Your task to perform on an android device: Open display settings Image 0: 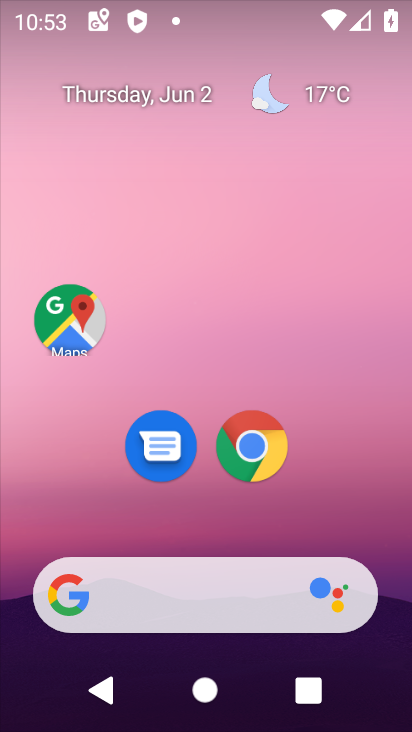
Step 0: drag from (326, 539) to (231, 167)
Your task to perform on an android device: Open display settings Image 1: 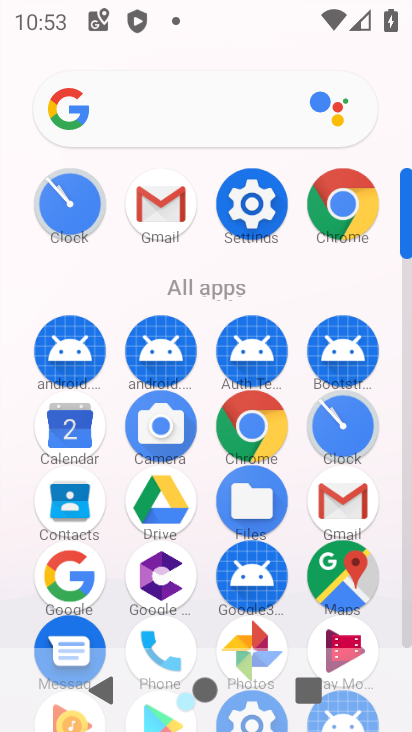
Step 1: click (243, 218)
Your task to perform on an android device: Open display settings Image 2: 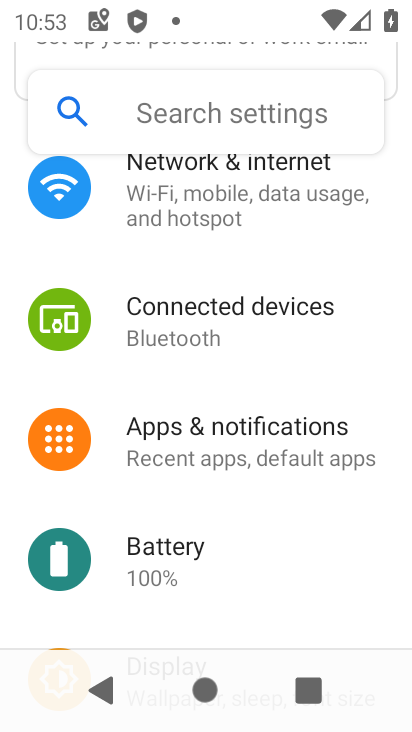
Step 2: drag from (269, 514) to (262, 147)
Your task to perform on an android device: Open display settings Image 3: 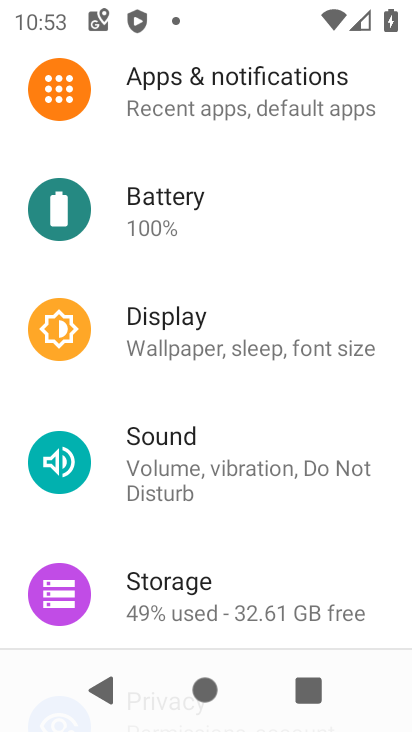
Step 3: drag from (223, 515) to (254, 164)
Your task to perform on an android device: Open display settings Image 4: 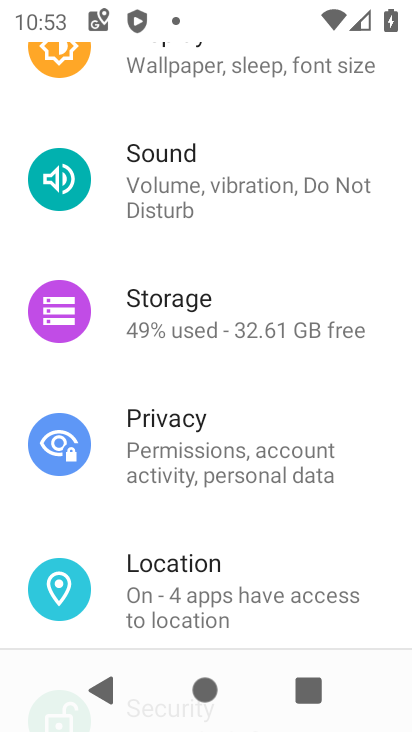
Step 4: click (260, 125)
Your task to perform on an android device: Open display settings Image 5: 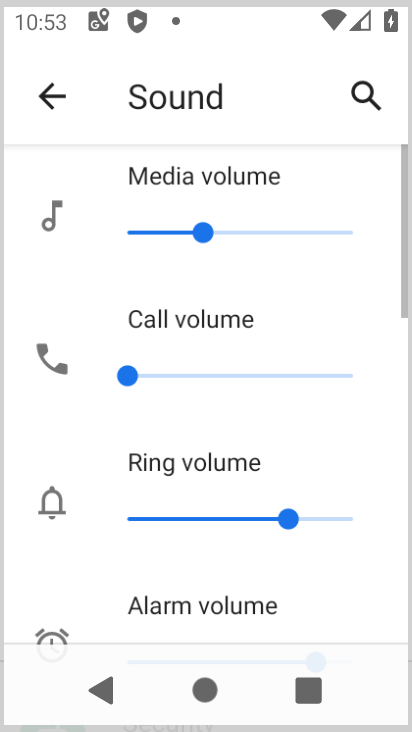
Step 5: drag from (236, 486) to (260, 260)
Your task to perform on an android device: Open display settings Image 6: 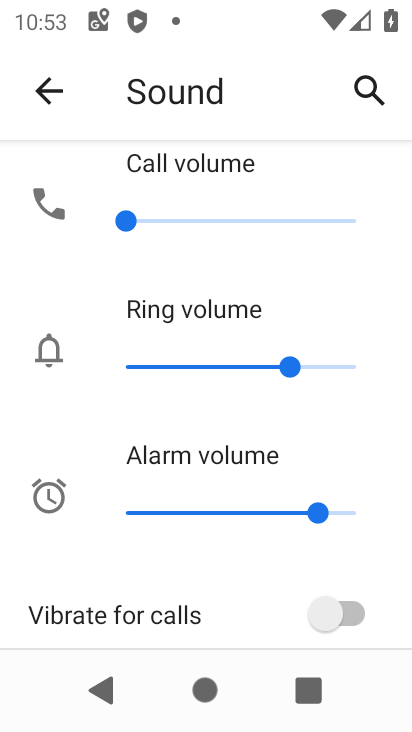
Step 6: click (59, 95)
Your task to perform on an android device: Open display settings Image 7: 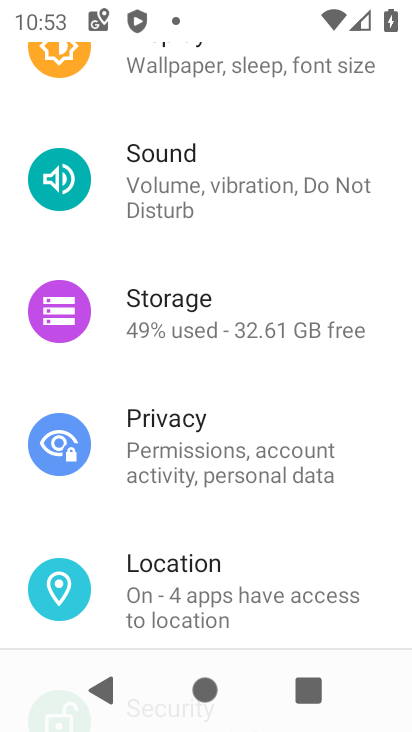
Step 7: drag from (262, 148) to (289, 518)
Your task to perform on an android device: Open display settings Image 8: 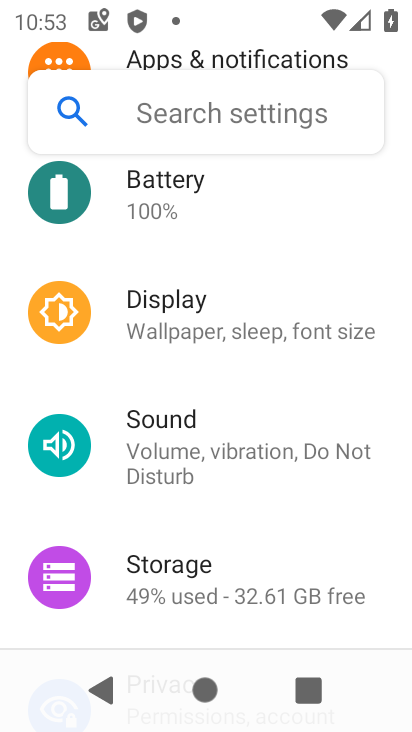
Step 8: click (216, 320)
Your task to perform on an android device: Open display settings Image 9: 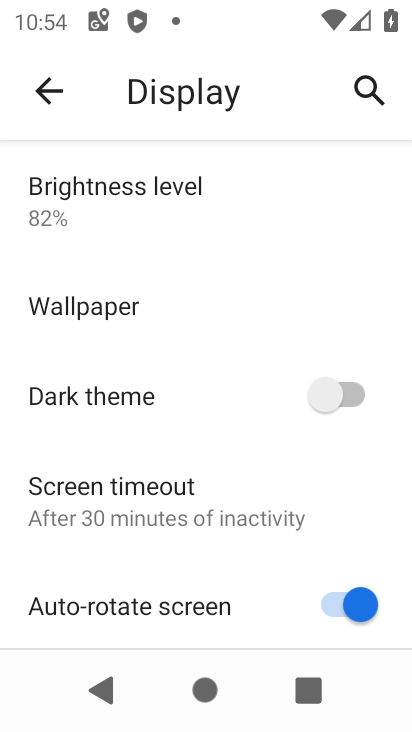
Step 9: task complete